Your task to perform on an android device: Show me productivity apps on the Play Store Image 0: 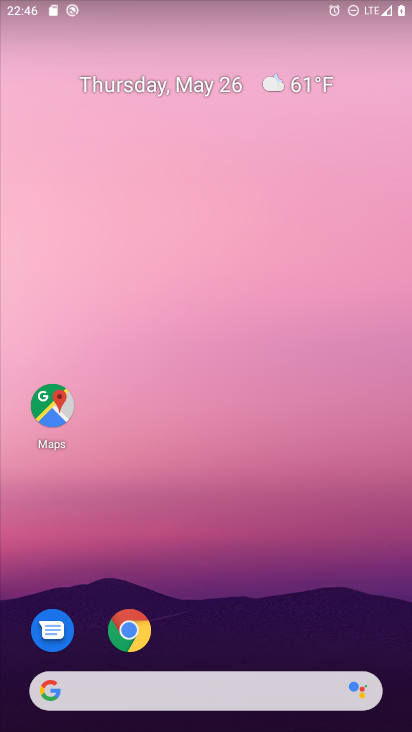
Step 0: drag from (230, 667) to (212, 16)
Your task to perform on an android device: Show me productivity apps on the Play Store Image 1: 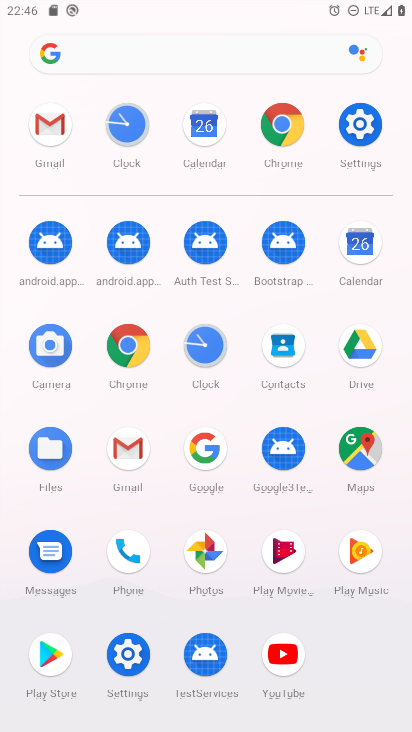
Step 1: click (45, 653)
Your task to perform on an android device: Show me productivity apps on the Play Store Image 2: 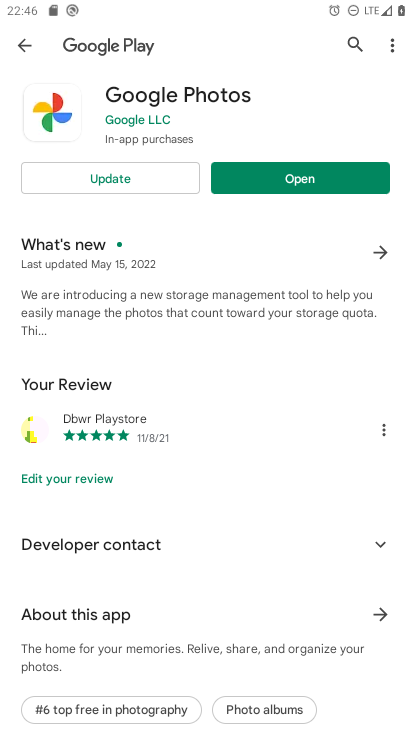
Step 2: click (14, 46)
Your task to perform on an android device: Show me productivity apps on the Play Store Image 3: 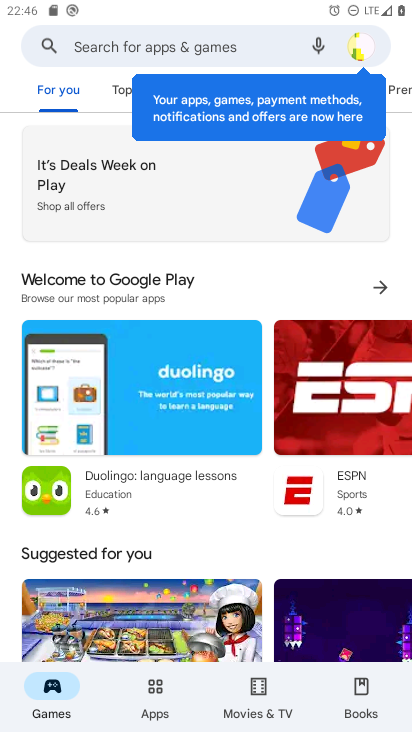
Step 3: click (151, 693)
Your task to perform on an android device: Show me productivity apps on the Play Store Image 4: 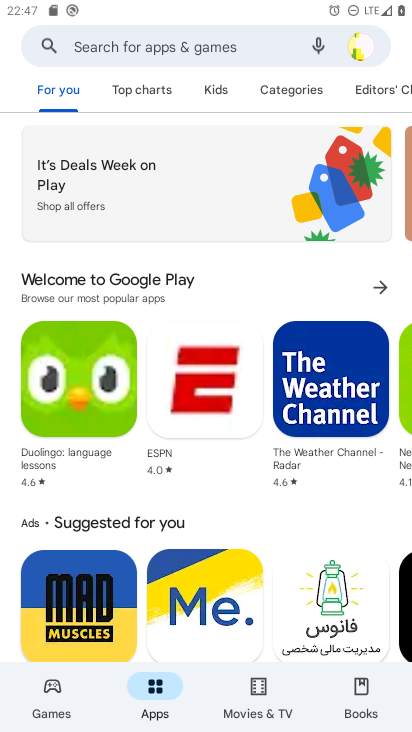
Step 4: click (283, 87)
Your task to perform on an android device: Show me productivity apps on the Play Store Image 5: 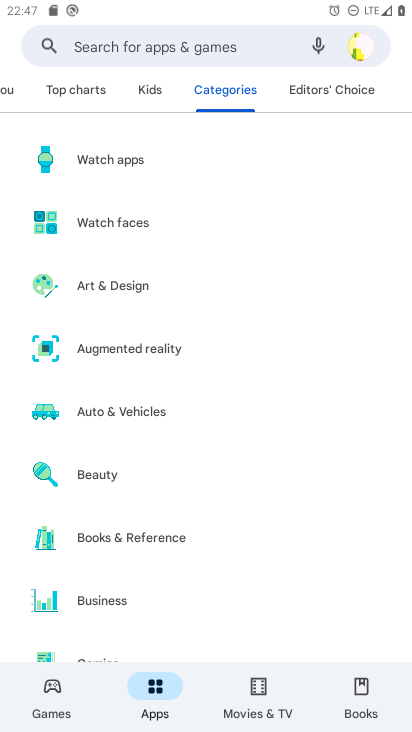
Step 5: drag from (249, 584) to (189, 199)
Your task to perform on an android device: Show me productivity apps on the Play Store Image 6: 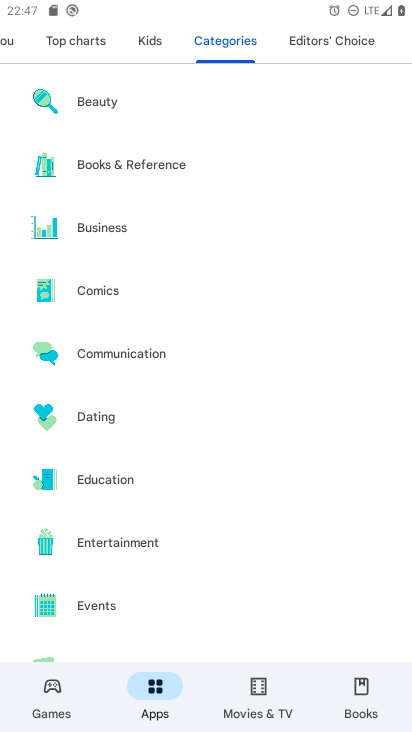
Step 6: drag from (254, 566) to (181, 72)
Your task to perform on an android device: Show me productivity apps on the Play Store Image 7: 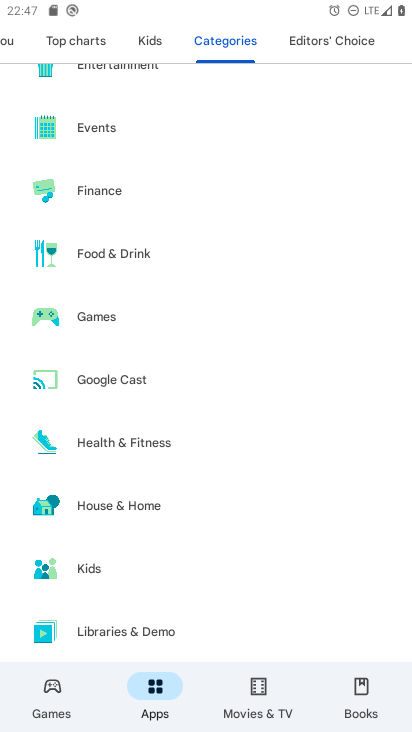
Step 7: drag from (178, 626) to (166, 42)
Your task to perform on an android device: Show me productivity apps on the Play Store Image 8: 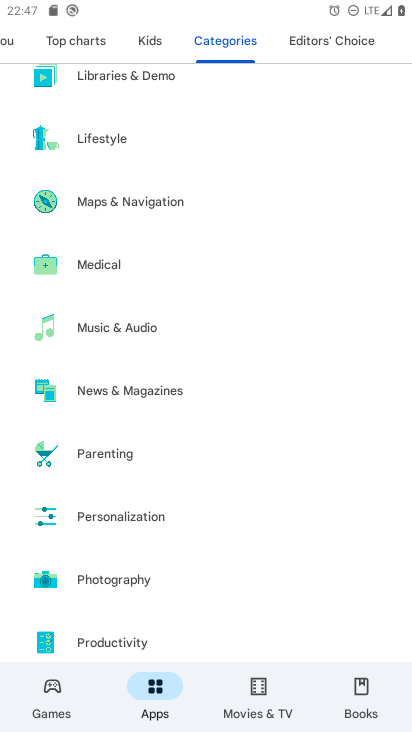
Step 8: click (118, 633)
Your task to perform on an android device: Show me productivity apps on the Play Store Image 9: 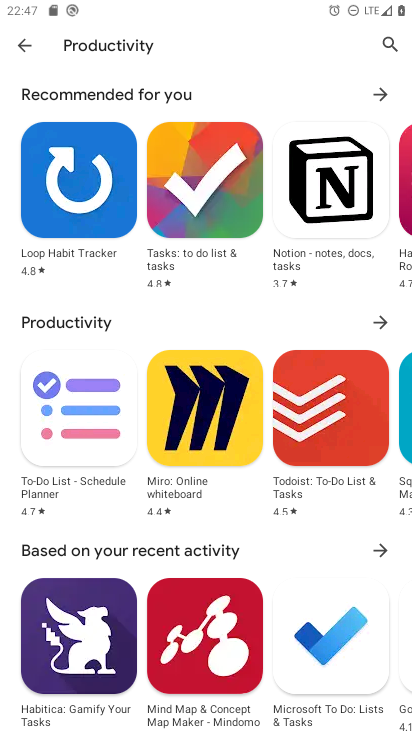
Step 9: task complete